Your task to perform on an android device: toggle airplane mode Image 0: 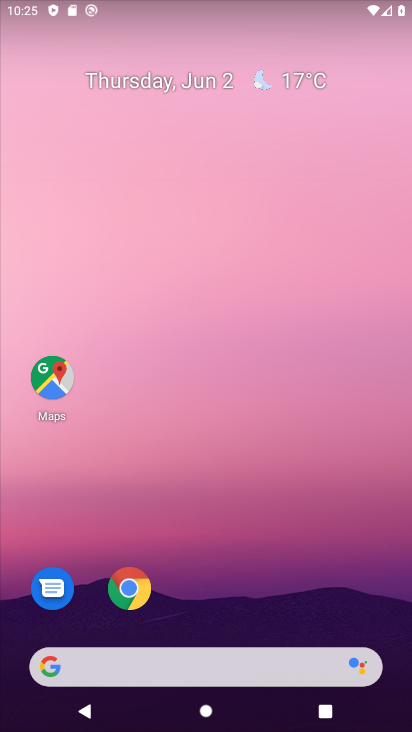
Step 0: drag from (206, 617) to (310, 6)
Your task to perform on an android device: toggle airplane mode Image 1: 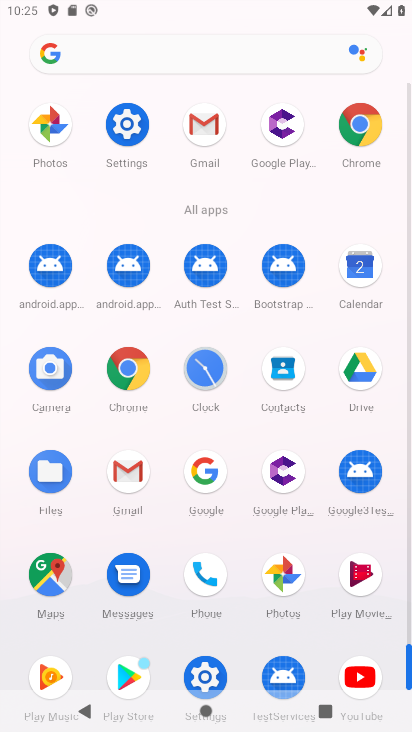
Step 1: click (132, 146)
Your task to perform on an android device: toggle airplane mode Image 2: 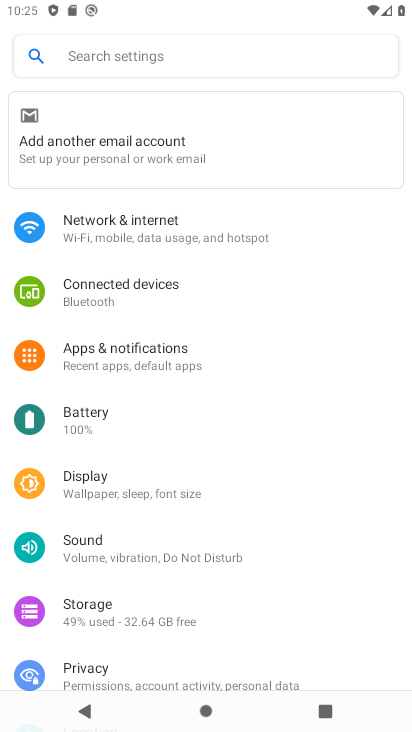
Step 2: click (194, 240)
Your task to perform on an android device: toggle airplane mode Image 3: 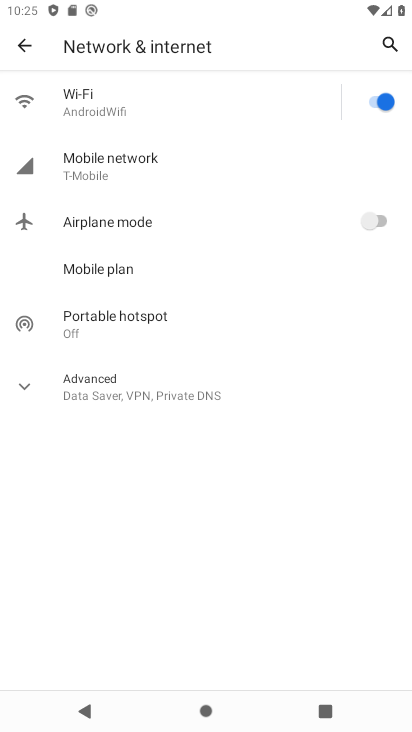
Step 3: click (391, 224)
Your task to perform on an android device: toggle airplane mode Image 4: 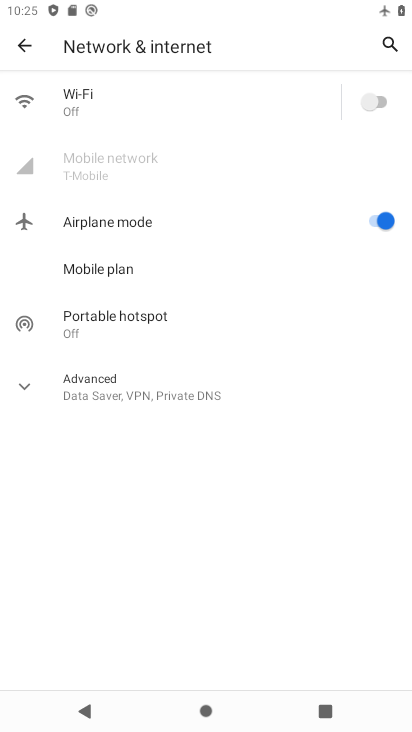
Step 4: task complete